Your task to perform on an android device: Go to settings Image 0: 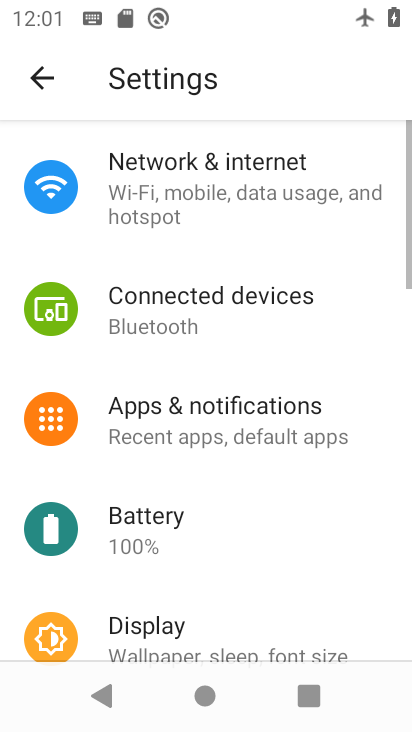
Step 0: press home button
Your task to perform on an android device: Go to settings Image 1: 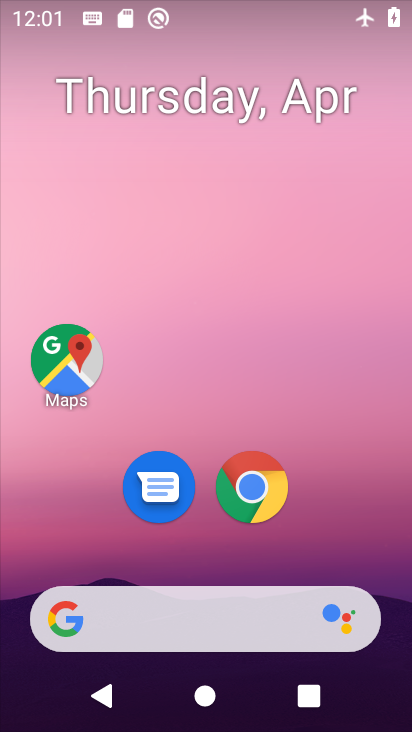
Step 1: drag from (236, 660) to (269, 197)
Your task to perform on an android device: Go to settings Image 2: 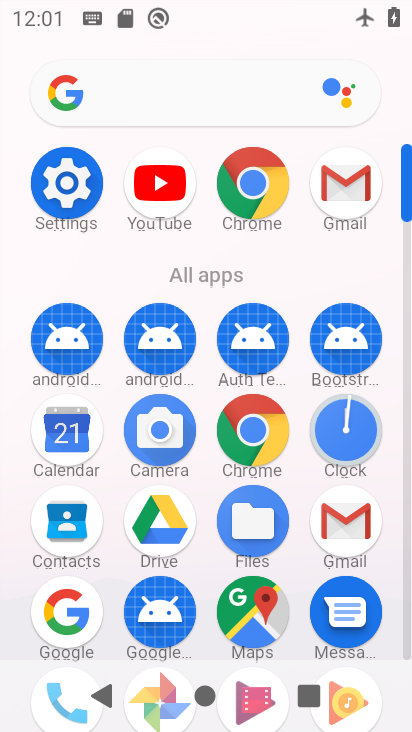
Step 2: click (67, 209)
Your task to perform on an android device: Go to settings Image 3: 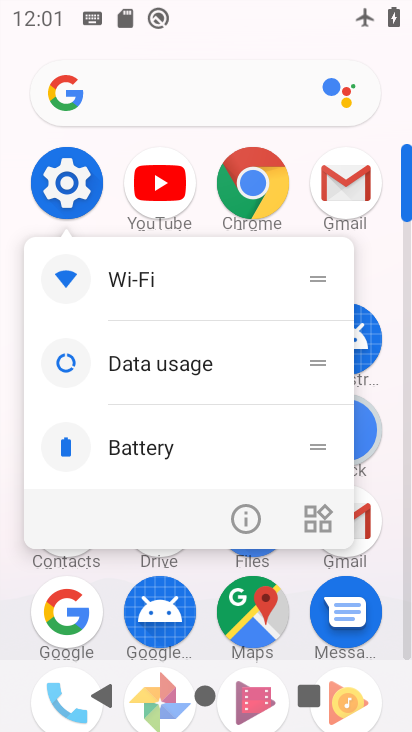
Step 3: click (65, 199)
Your task to perform on an android device: Go to settings Image 4: 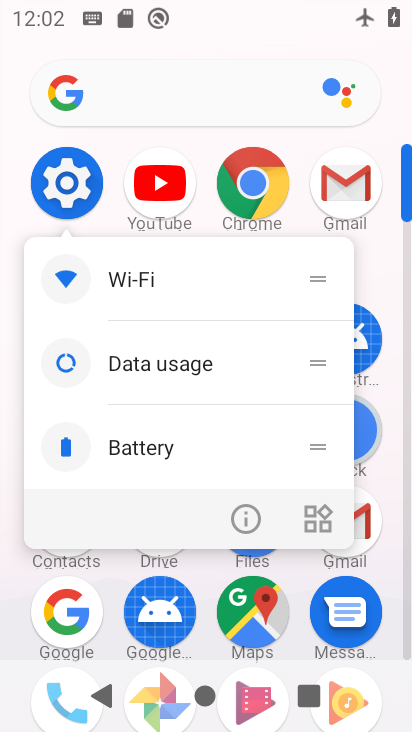
Step 4: click (65, 199)
Your task to perform on an android device: Go to settings Image 5: 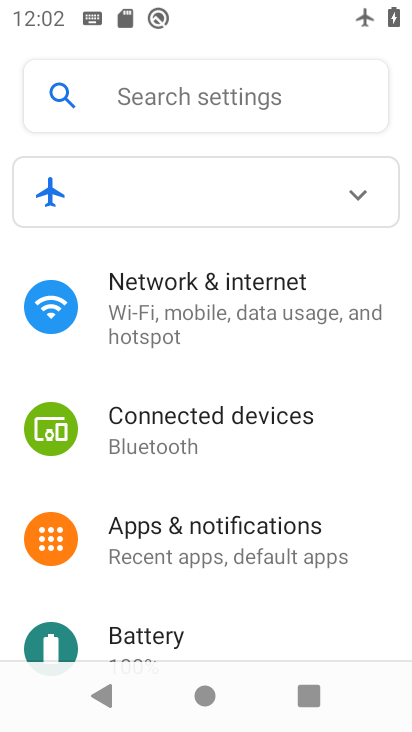
Step 5: task complete